Your task to perform on an android device: Check the news Image 0: 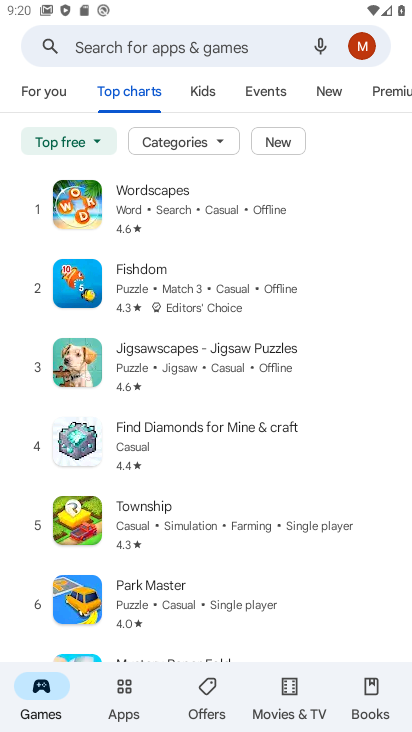
Step 0: press home button
Your task to perform on an android device: Check the news Image 1: 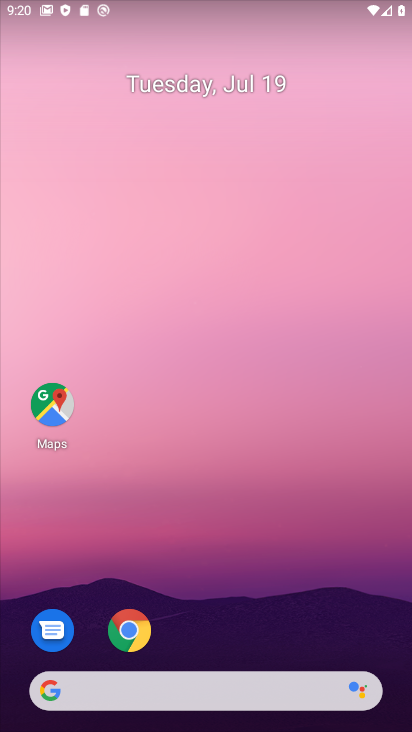
Step 1: click (155, 684)
Your task to perform on an android device: Check the news Image 2: 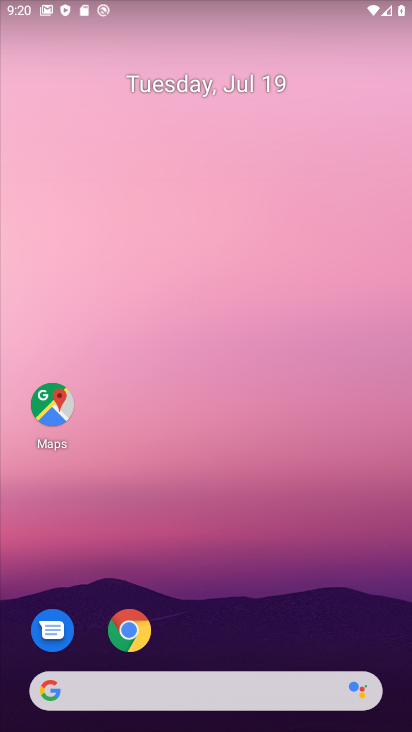
Step 2: type "news"
Your task to perform on an android device: Check the news Image 3: 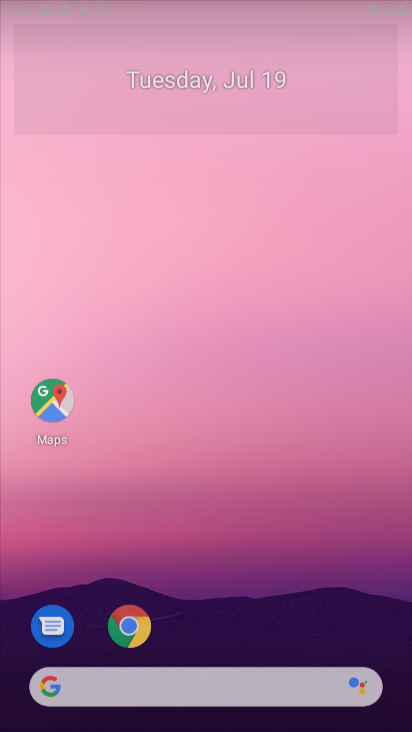
Step 3: click (183, 682)
Your task to perform on an android device: Check the news Image 4: 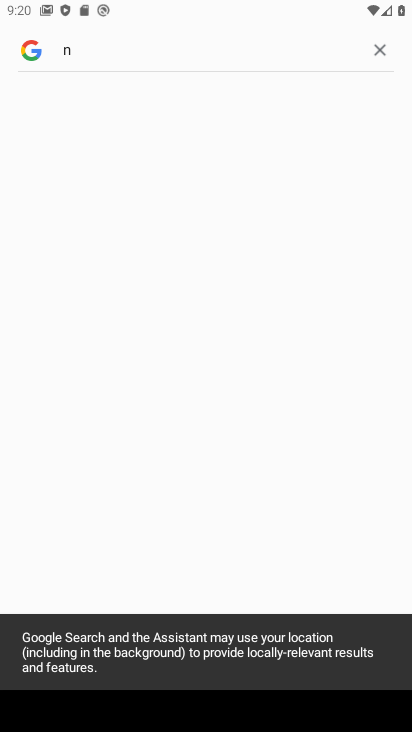
Step 4: click (110, 54)
Your task to perform on an android device: Check the news Image 5: 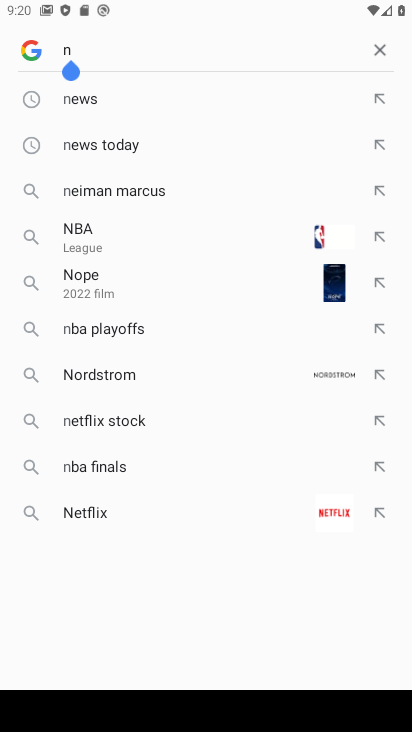
Step 5: click (99, 96)
Your task to perform on an android device: Check the news Image 6: 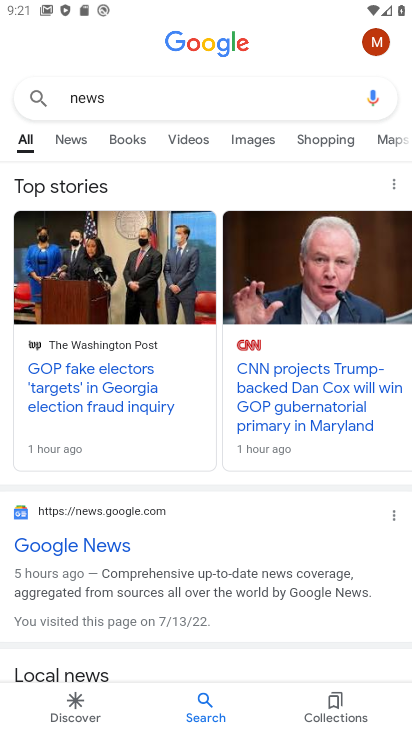
Step 6: task complete